Your task to perform on an android device: Show me productivity apps on the Play Store Image 0: 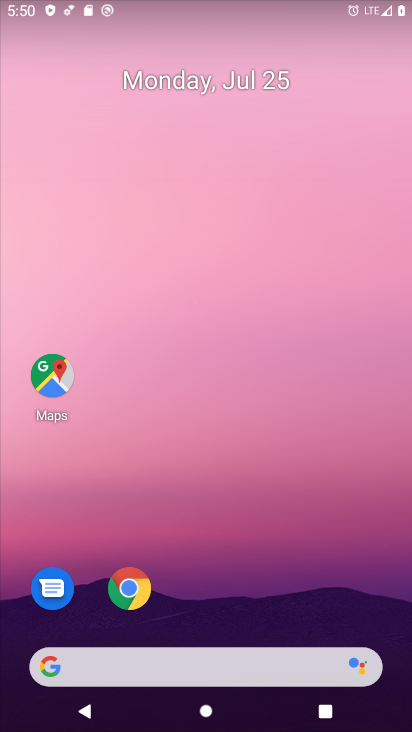
Step 0: drag from (186, 660) to (301, 77)
Your task to perform on an android device: Show me productivity apps on the Play Store Image 1: 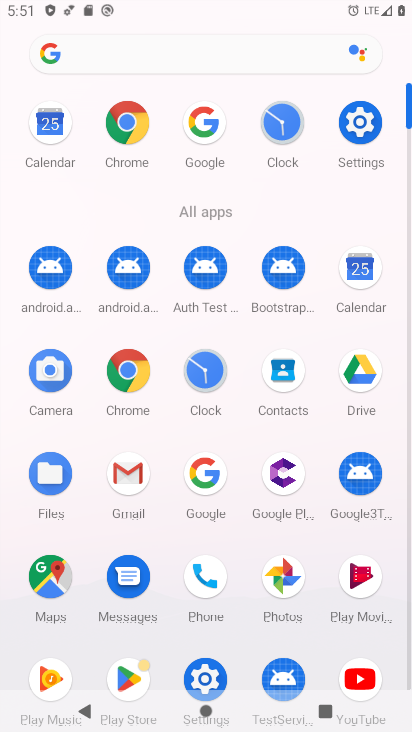
Step 1: click (132, 676)
Your task to perform on an android device: Show me productivity apps on the Play Store Image 2: 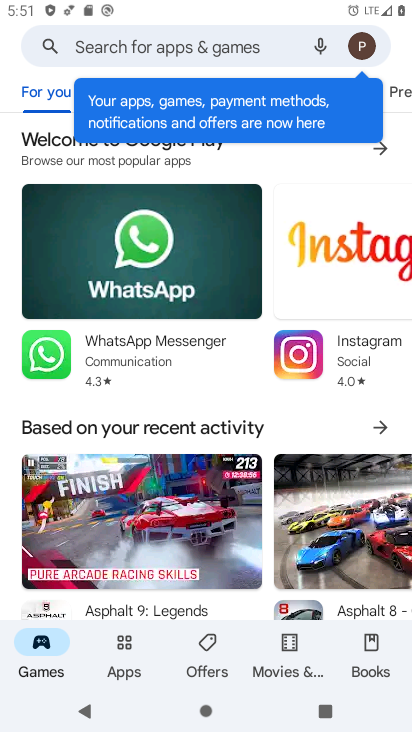
Step 2: click (124, 647)
Your task to perform on an android device: Show me productivity apps on the Play Store Image 3: 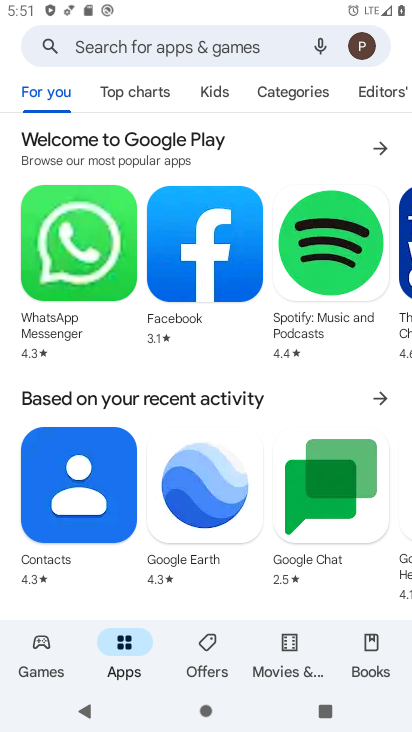
Step 3: click (300, 91)
Your task to perform on an android device: Show me productivity apps on the Play Store Image 4: 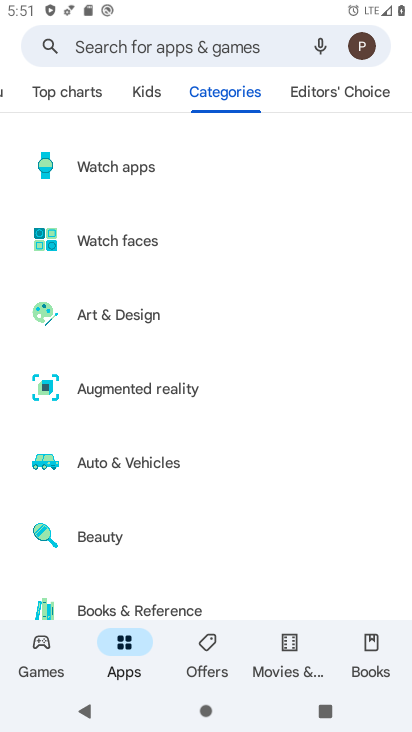
Step 4: drag from (183, 525) to (277, 310)
Your task to perform on an android device: Show me productivity apps on the Play Store Image 5: 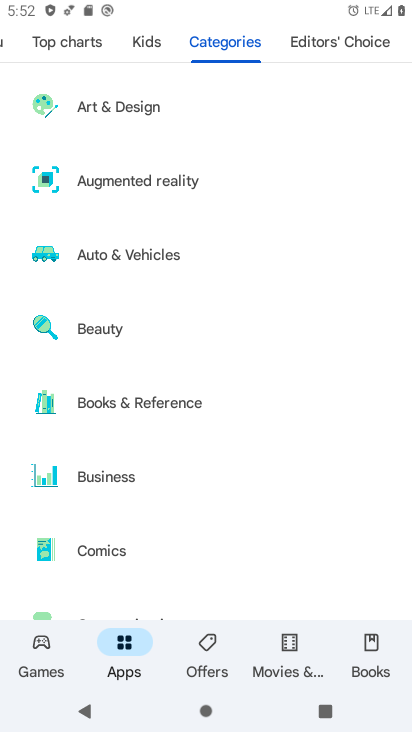
Step 5: drag from (166, 452) to (211, 362)
Your task to perform on an android device: Show me productivity apps on the Play Store Image 6: 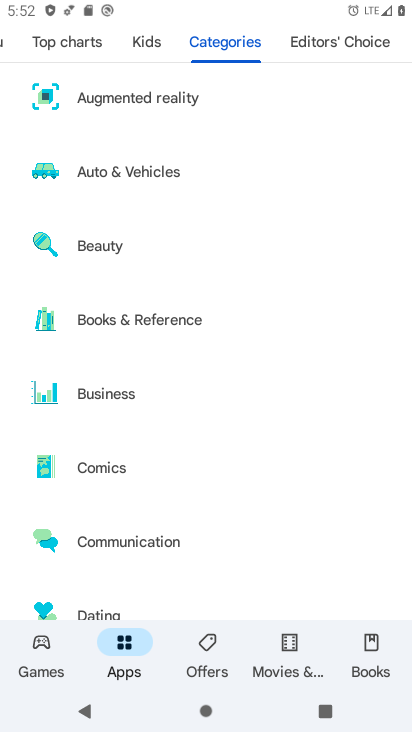
Step 6: drag from (126, 436) to (176, 350)
Your task to perform on an android device: Show me productivity apps on the Play Store Image 7: 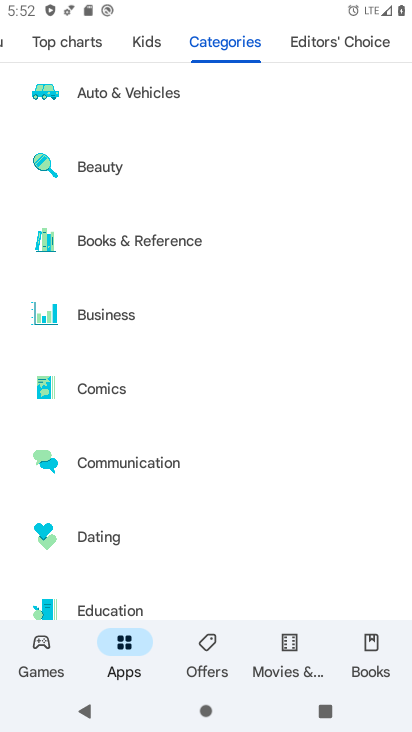
Step 7: drag from (126, 417) to (165, 331)
Your task to perform on an android device: Show me productivity apps on the Play Store Image 8: 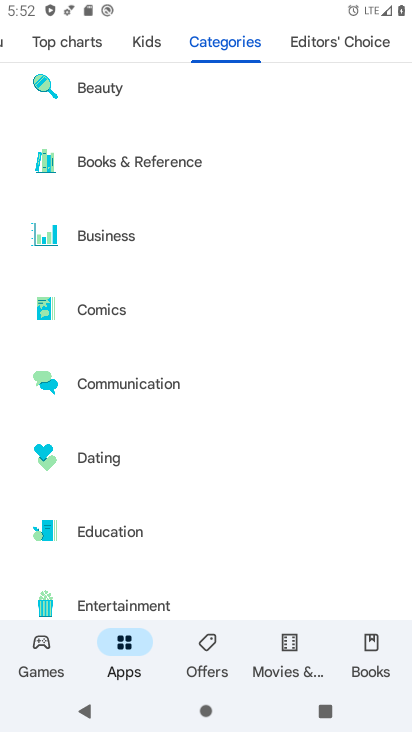
Step 8: drag from (101, 417) to (143, 339)
Your task to perform on an android device: Show me productivity apps on the Play Store Image 9: 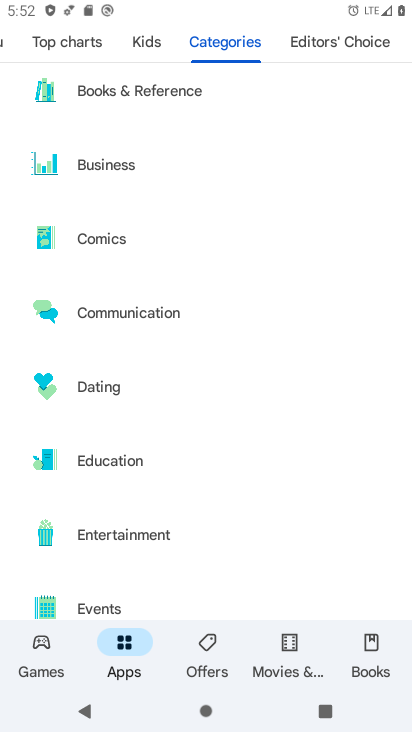
Step 9: drag from (104, 419) to (144, 337)
Your task to perform on an android device: Show me productivity apps on the Play Store Image 10: 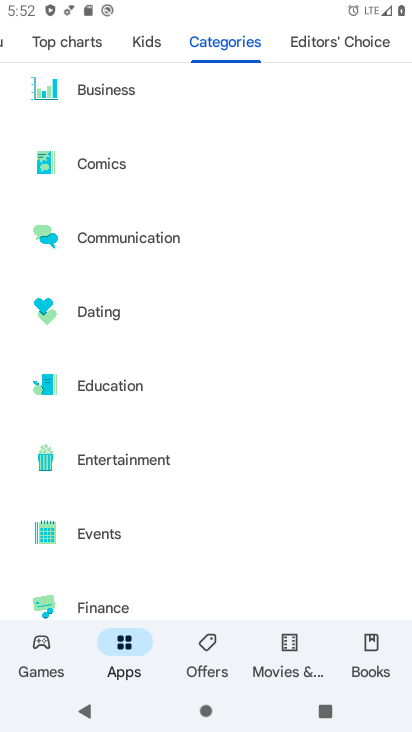
Step 10: drag from (108, 427) to (151, 339)
Your task to perform on an android device: Show me productivity apps on the Play Store Image 11: 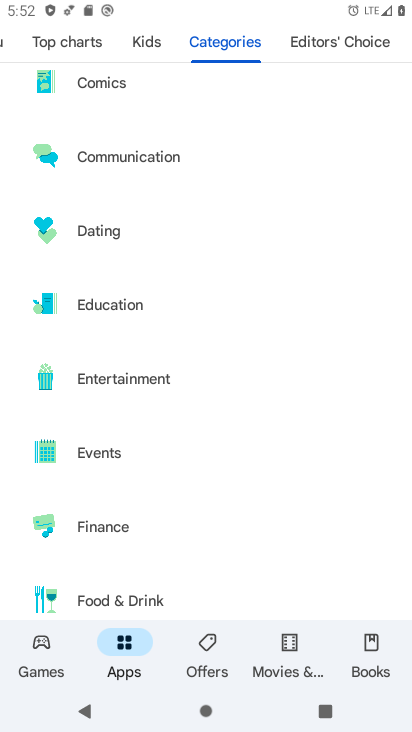
Step 11: drag from (122, 413) to (151, 339)
Your task to perform on an android device: Show me productivity apps on the Play Store Image 12: 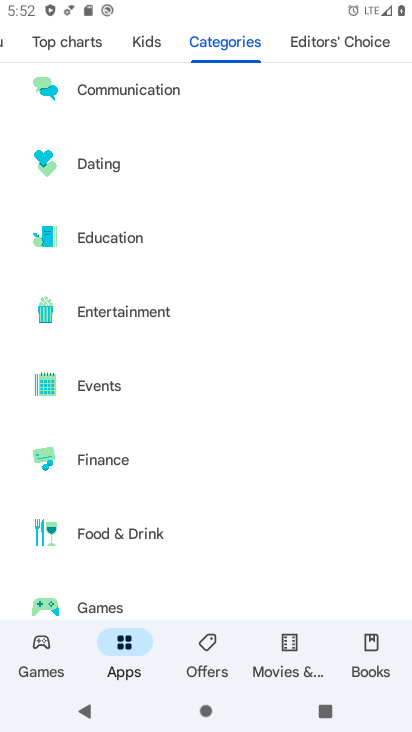
Step 12: drag from (96, 430) to (124, 349)
Your task to perform on an android device: Show me productivity apps on the Play Store Image 13: 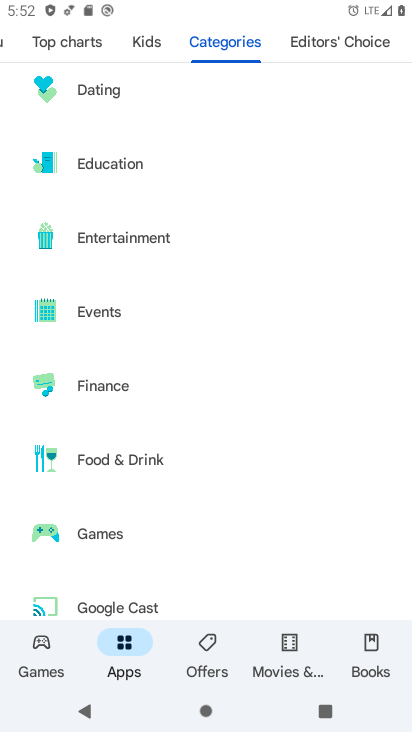
Step 13: drag from (73, 421) to (110, 334)
Your task to perform on an android device: Show me productivity apps on the Play Store Image 14: 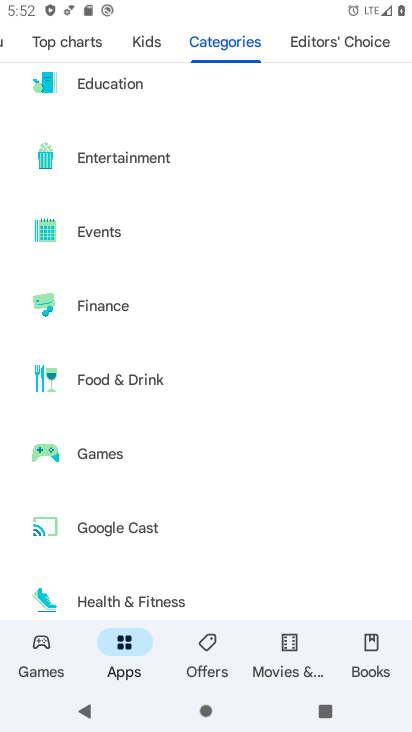
Step 14: drag from (101, 406) to (120, 332)
Your task to perform on an android device: Show me productivity apps on the Play Store Image 15: 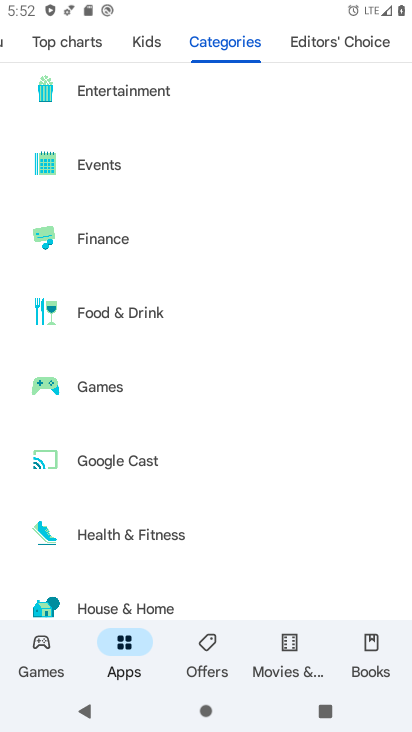
Step 15: drag from (112, 411) to (135, 328)
Your task to perform on an android device: Show me productivity apps on the Play Store Image 16: 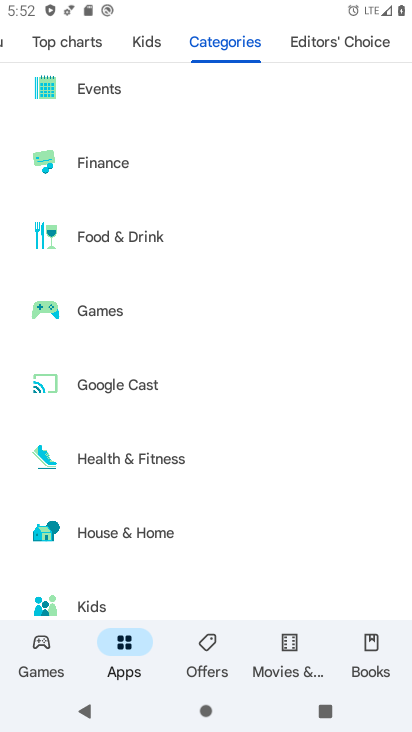
Step 16: drag from (102, 414) to (135, 332)
Your task to perform on an android device: Show me productivity apps on the Play Store Image 17: 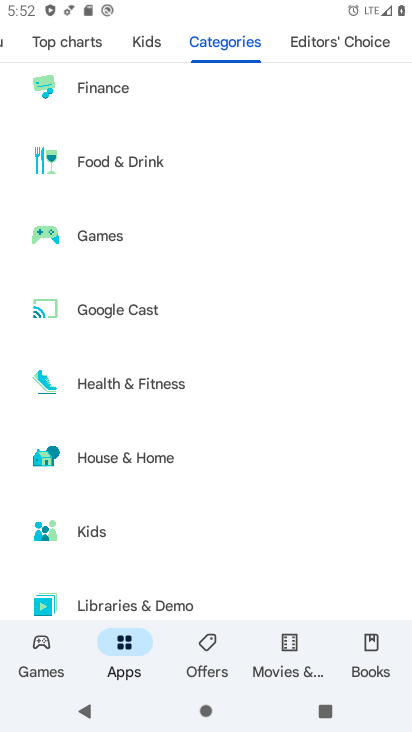
Step 17: drag from (113, 423) to (153, 351)
Your task to perform on an android device: Show me productivity apps on the Play Store Image 18: 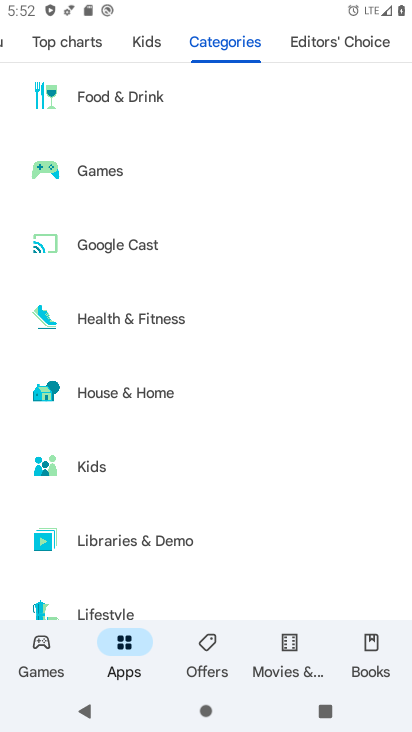
Step 18: drag from (116, 436) to (160, 365)
Your task to perform on an android device: Show me productivity apps on the Play Store Image 19: 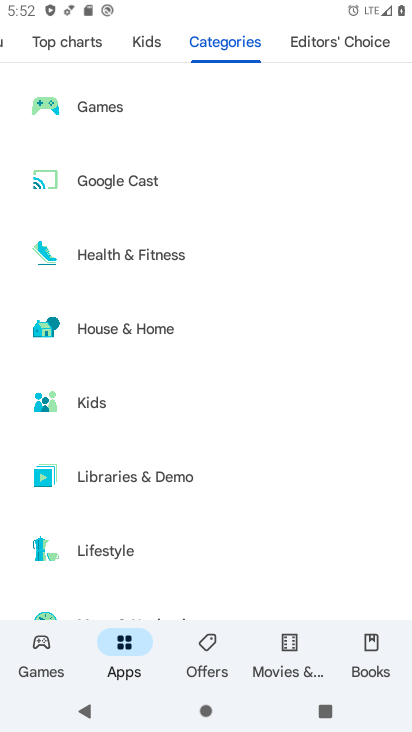
Step 19: drag from (113, 437) to (153, 353)
Your task to perform on an android device: Show me productivity apps on the Play Store Image 20: 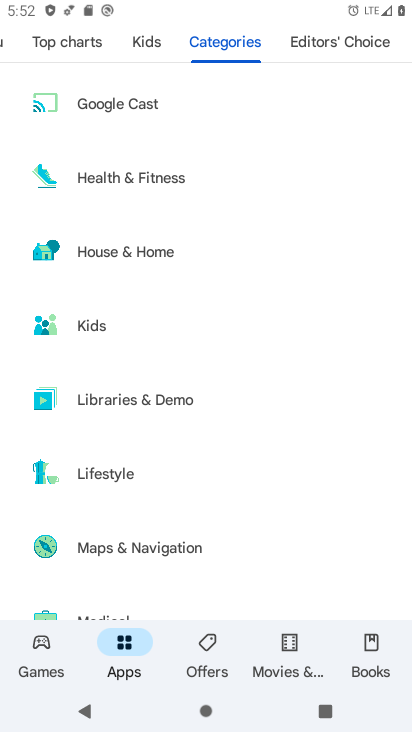
Step 20: drag from (100, 427) to (164, 332)
Your task to perform on an android device: Show me productivity apps on the Play Store Image 21: 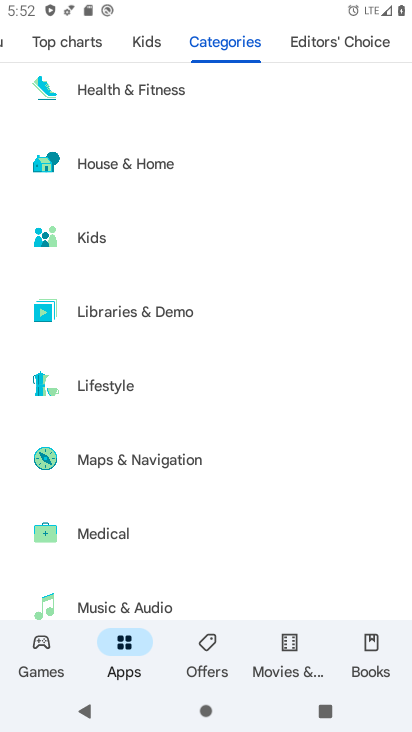
Step 21: drag from (102, 424) to (168, 326)
Your task to perform on an android device: Show me productivity apps on the Play Store Image 22: 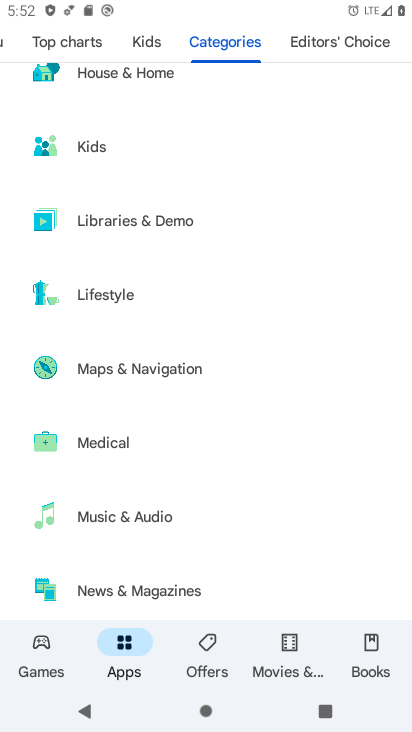
Step 22: drag from (112, 415) to (179, 316)
Your task to perform on an android device: Show me productivity apps on the Play Store Image 23: 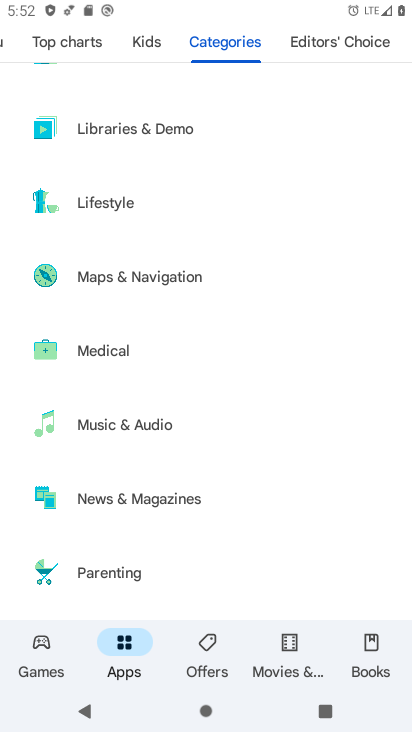
Step 23: drag from (110, 390) to (165, 307)
Your task to perform on an android device: Show me productivity apps on the Play Store Image 24: 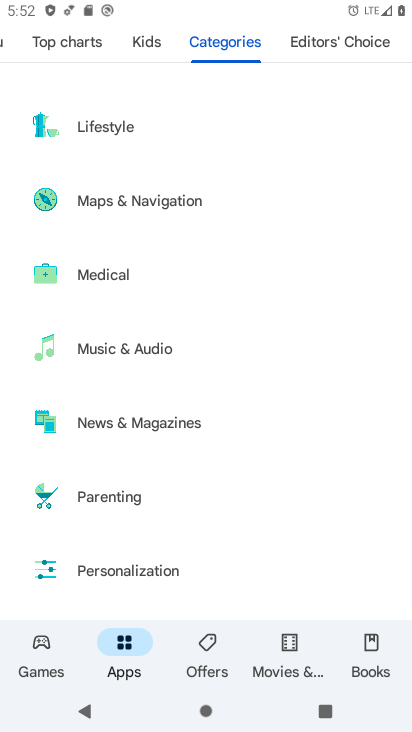
Step 24: drag from (102, 436) to (150, 345)
Your task to perform on an android device: Show me productivity apps on the Play Store Image 25: 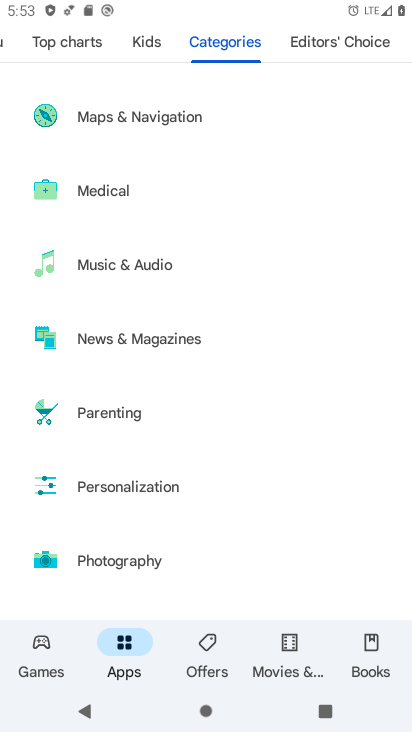
Step 25: drag from (126, 519) to (187, 398)
Your task to perform on an android device: Show me productivity apps on the Play Store Image 26: 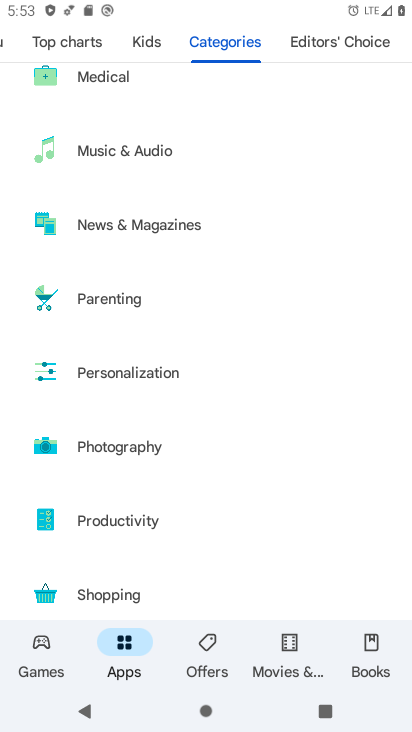
Step 26: click (146, 517)
Your task to perform on an android device: Show me productivity apps on the Play Store Image 27: 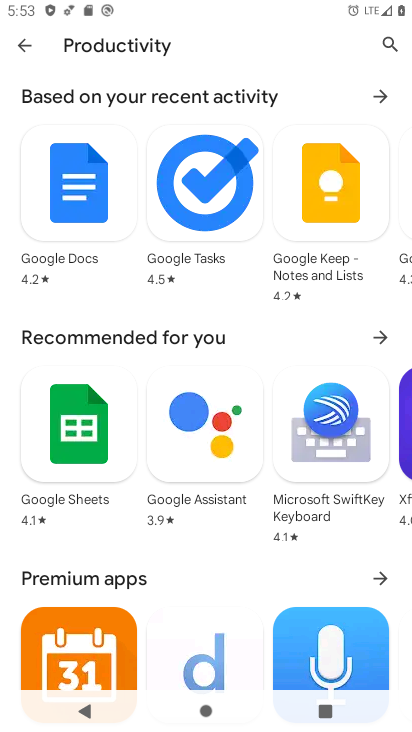
Step 27: task complete